Your task to perform on an android device: Go to CNN.com Image 0: 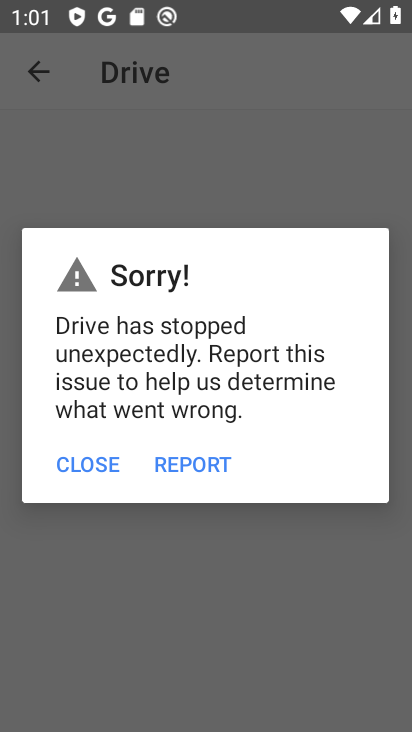
Step 0: press home button
Your task to perform on an android device: Go to CNN.com Image 1: 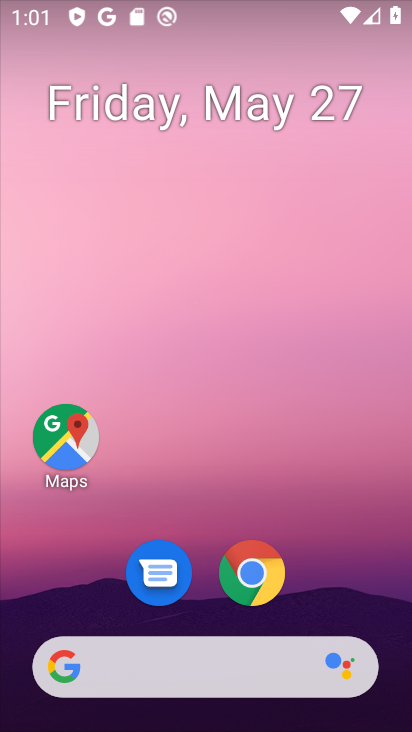
Step 1: click (274, 572)
Your task to perform on an android device: Go to CNN.com Image 2: 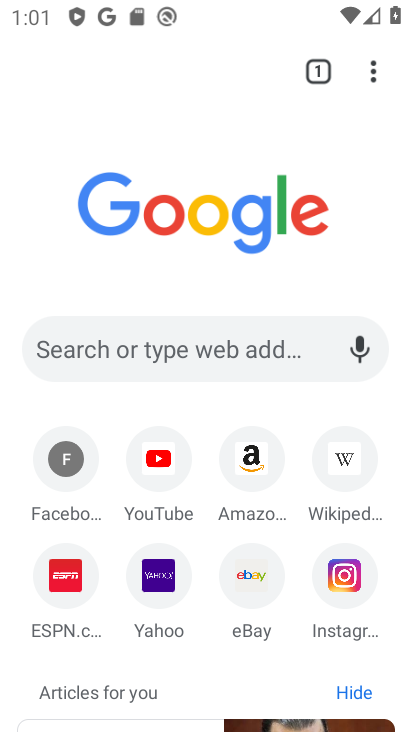
Step 2: click (164, 338)
Your task to perform on an android device: Go to CNN.com Image 3: 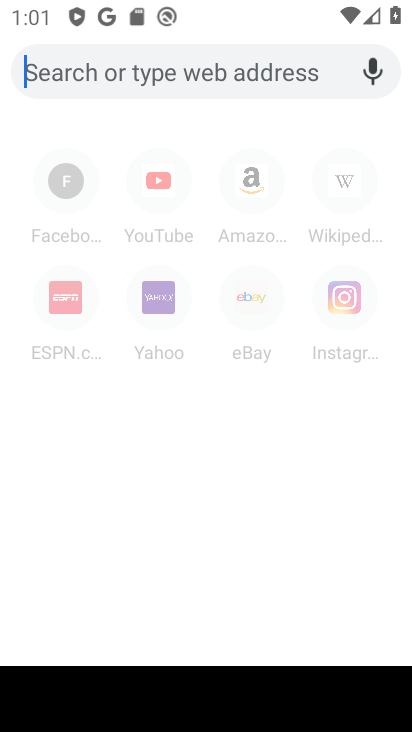
Step 3: type "cnn"
Your task to perform on an android device: Go to CNN.com Image 4: 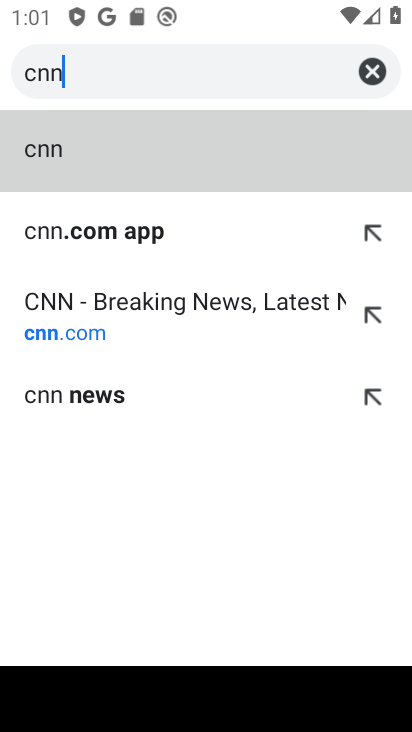
Step 4: type ""
Your task to perform on an android device: Go to CNN.com Image 5: 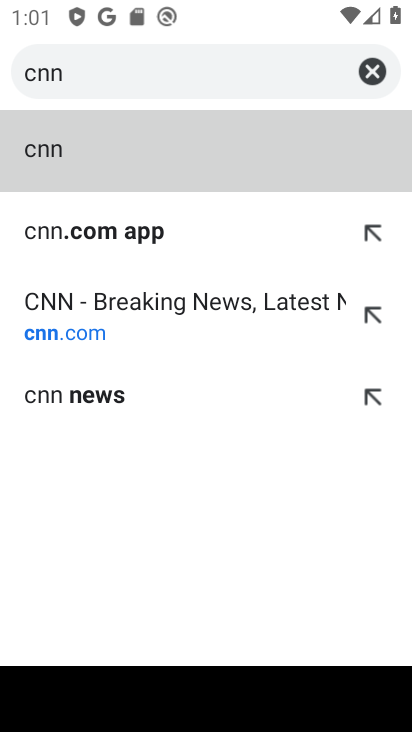
Step 5: click (100, 343)
Your task to perform on an android device: Go to CNN.com Image 6: 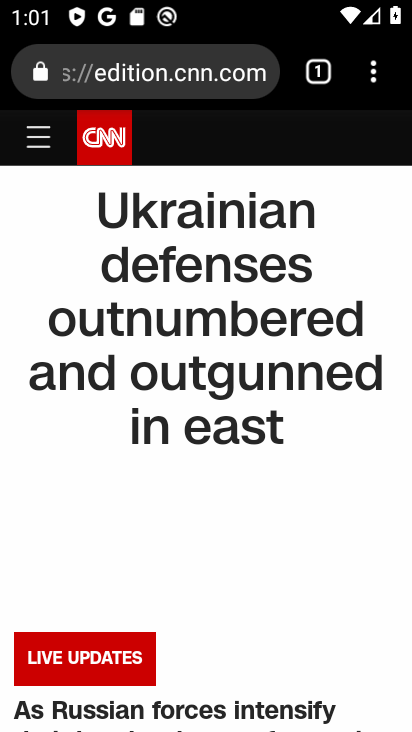
Step 6: task complete